Your task to perform on an android device: set an alarm Image 0: 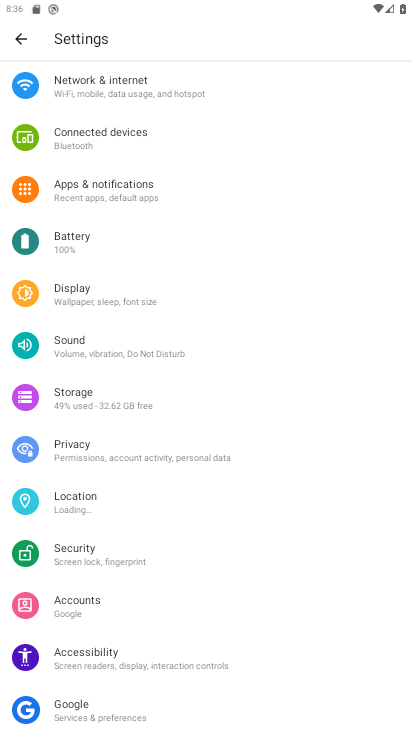
Step 0: press home button
Your task to perform on an android device: set an alarm Image 1: 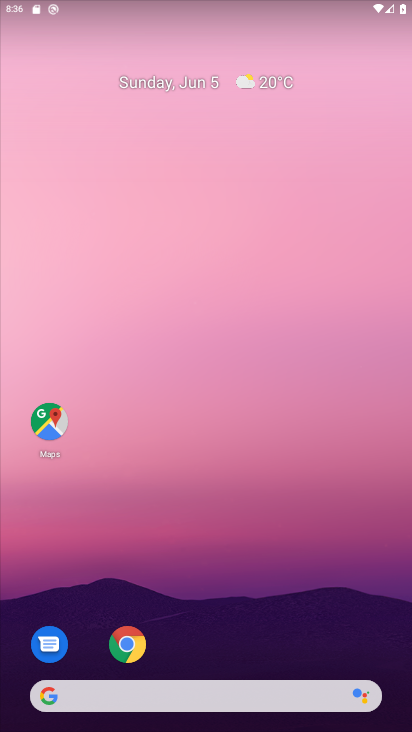
Step 1: drag from (334, 598) to (325, 234)
Your task to perform on an android device: set an alarm Image 2: 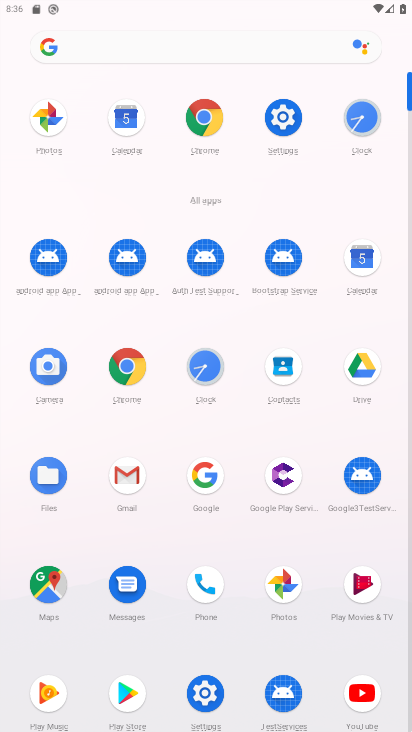
Step 2: click (208, 370)
Your task to perform on an android device: set an alarm Image 3: 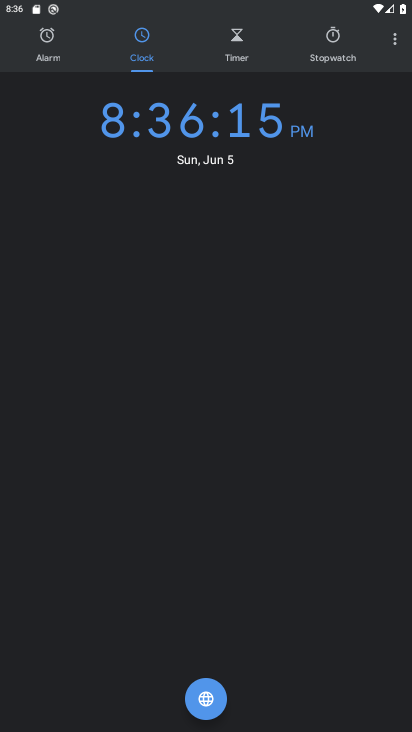
Step 3: click (40, 55)
Your task to perform on an android device: set an alarm Image 4: 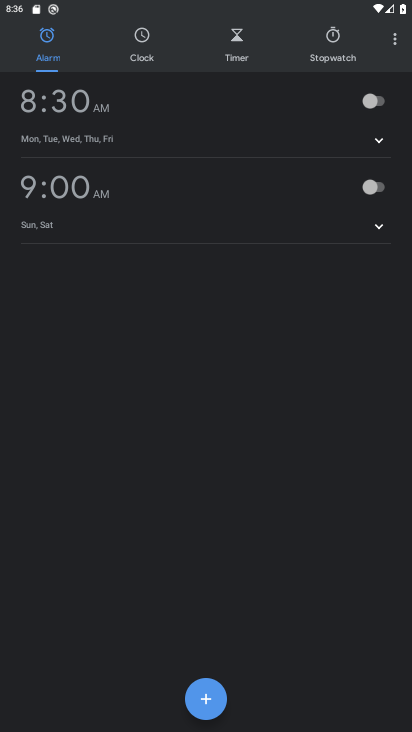
Step 4: click (204, 703)
Your task to perform on an android device: set an alarm Image 5: 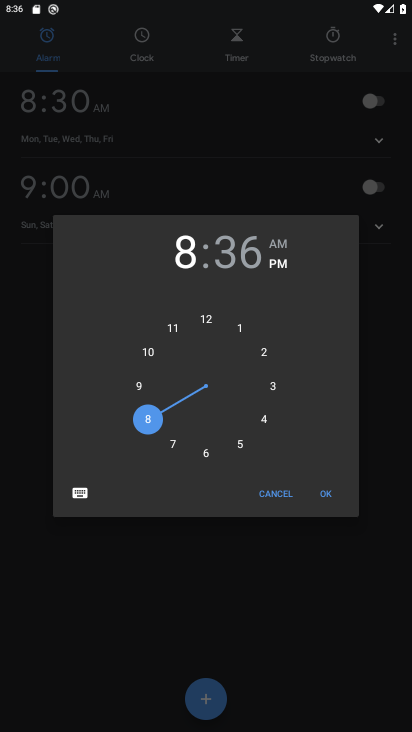
Step 5: click (321, 492)
Your task to perform on an android device: set an alarm Image 6: 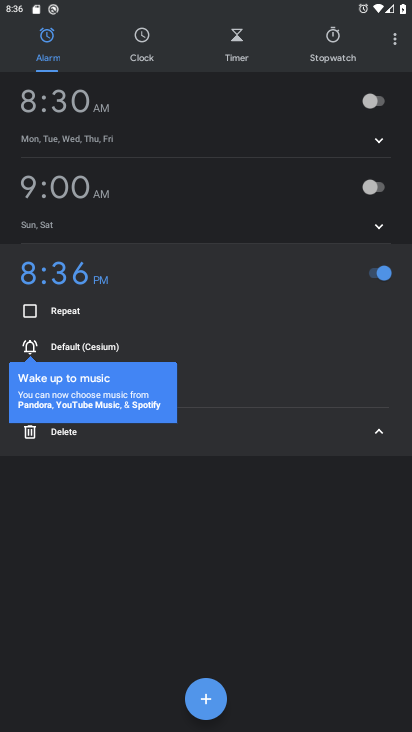
Step 6: task complete